Your task to perform on an android device: Open Chrome and go to the settings page Image 0: 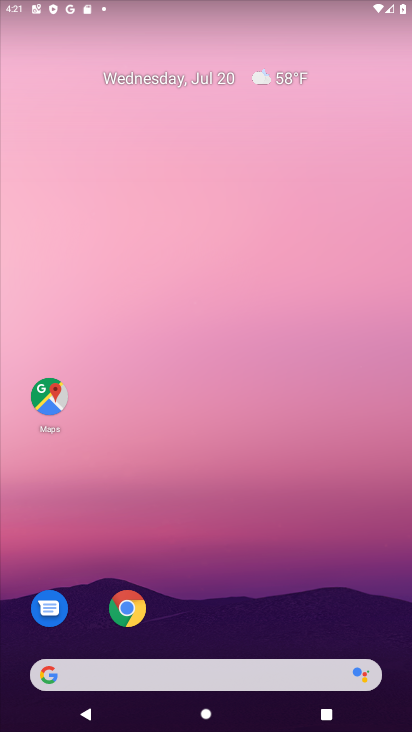
Step 0: click (133, 607)
Your task to perform on an android device: Open Chrome and go to the settings page Image 1: 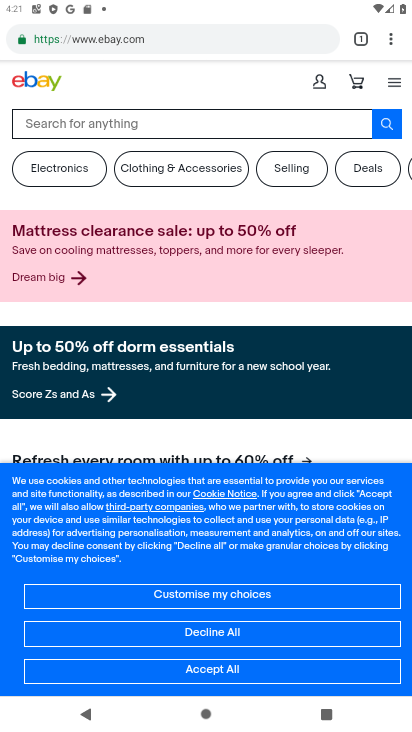
Step 1: click (394, 45)
Your task to perform on an android device: Open Chrome and go to the settings page Image 2: 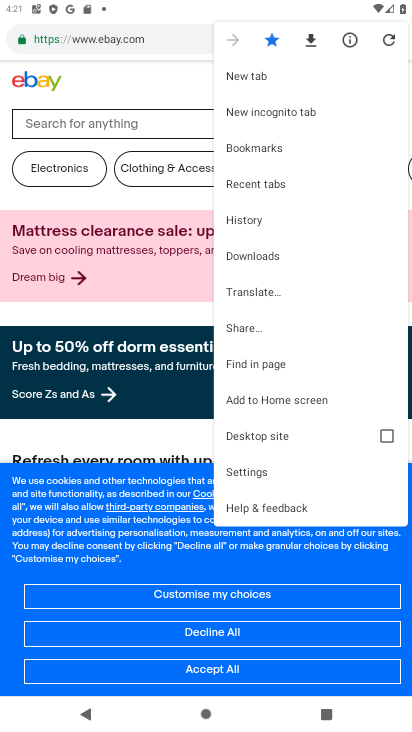
Step 2: click (258, 473)
Your task to perform on an android device: Open Chrome and go to the settings page Image 3: 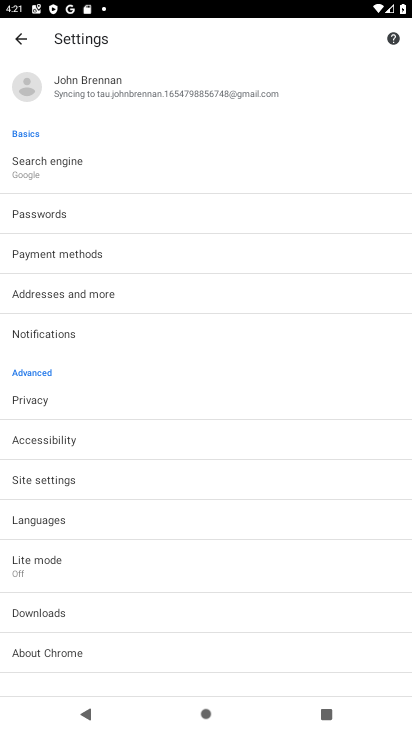
Step 3: task complete